Your task to perform on an android device: Open CNN.com Image 0: 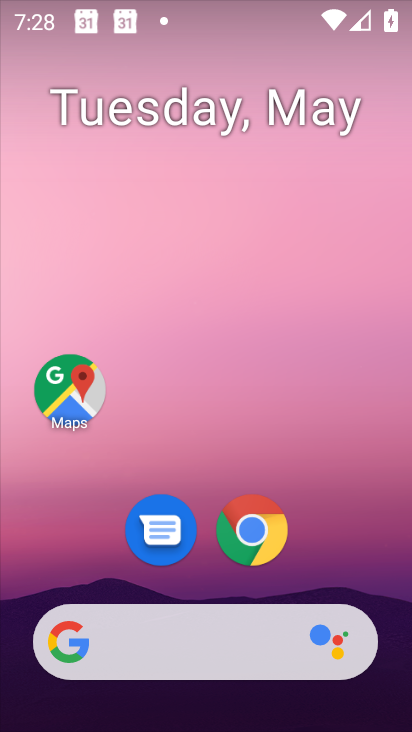
Step 0: press home button
Your task to perform on an android device: Open CNN.com Image 1: 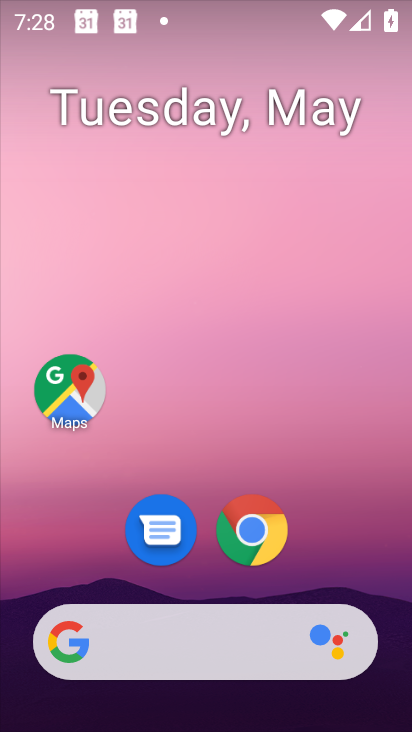
Step 1: click (273, 546)
Your task to perform on an android device: Open CNN.com Image 2: 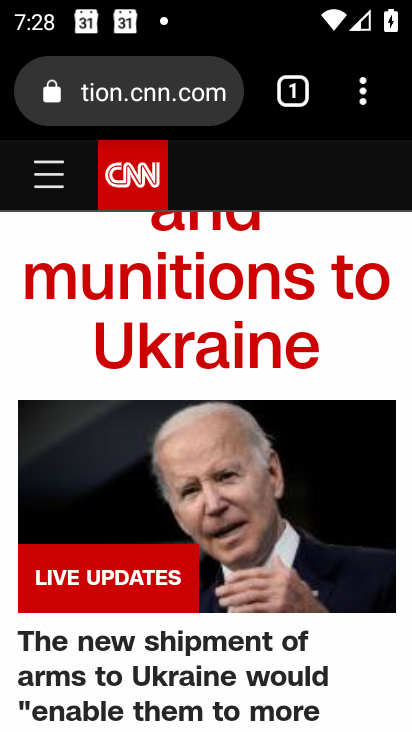
Step 2: task complete